Your task to perform on an android device: What time is it in Berlin? Image 0: 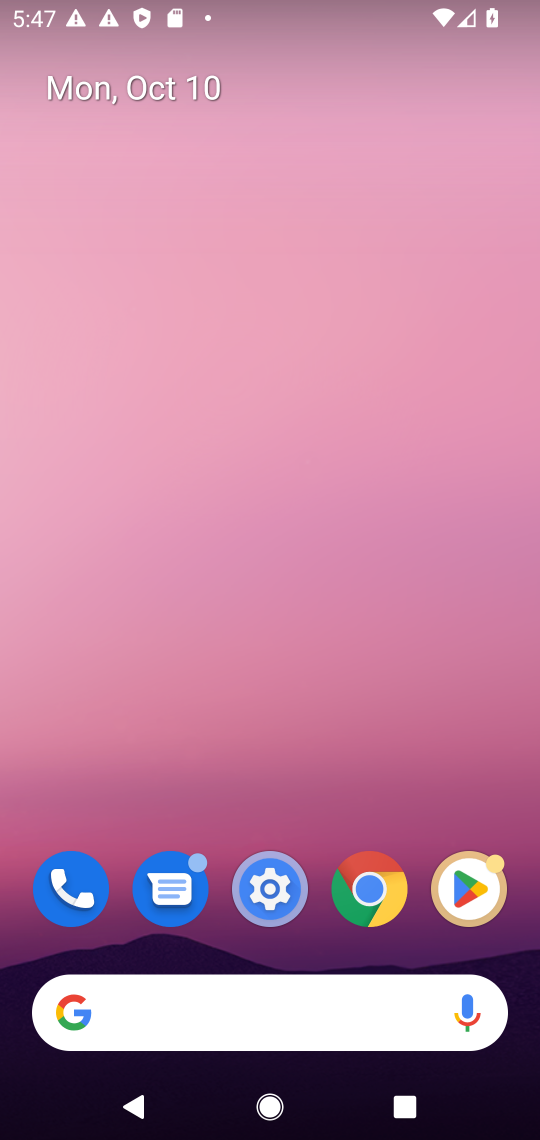
Step 0: click (270, 1009)
Your task to perform on an android device: What time is it in Berlin? Image 1: 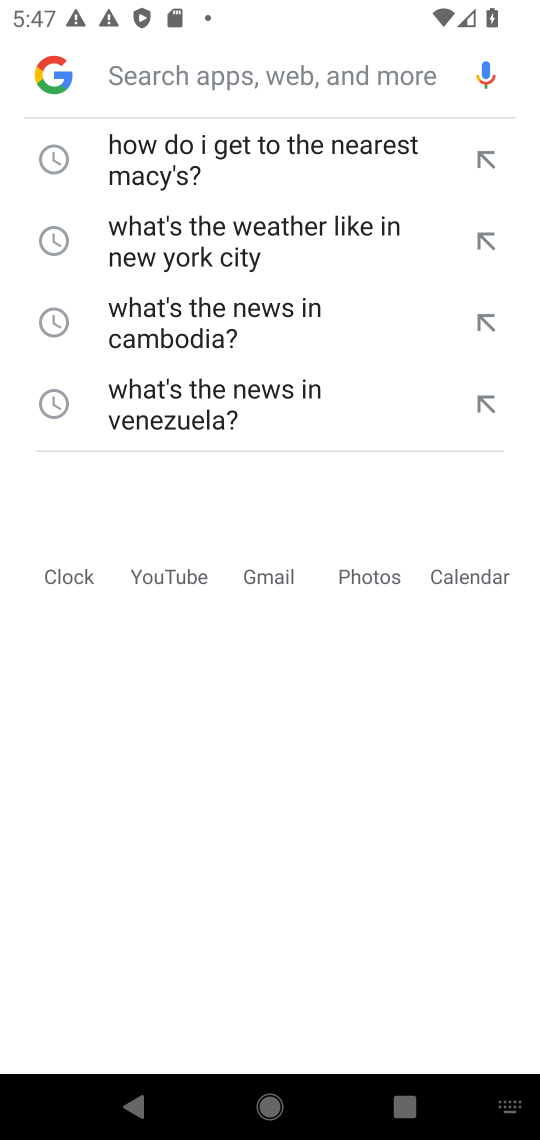
Step 1: type "What time is it in Berlin?"
Your task to perform on an android device: What time is it in Berlin? Image 2: 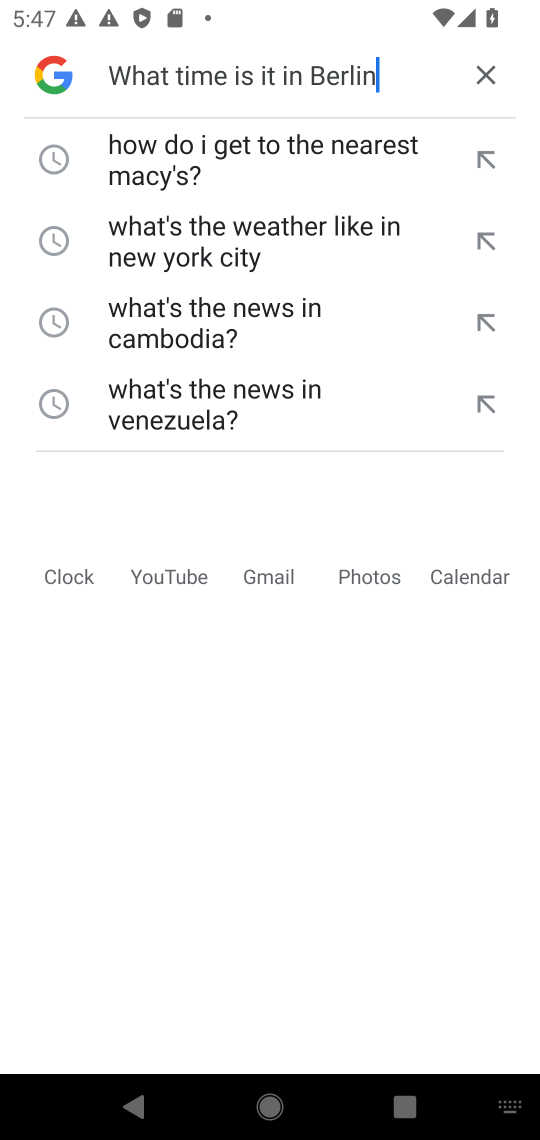
Step 2: type ""
Your task to perform on an android device: What time is it in Berlin? Image 3: 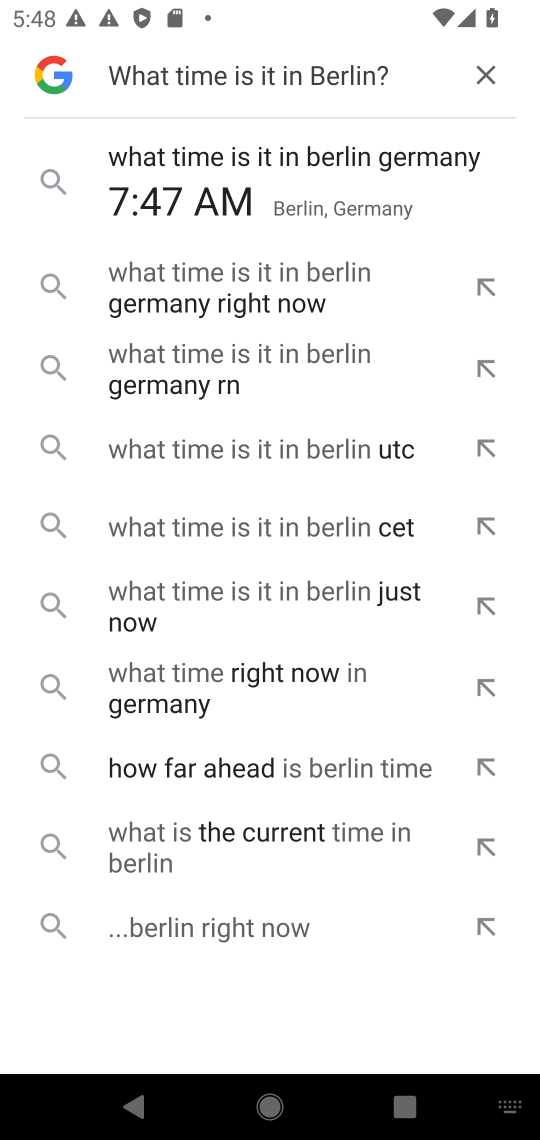
Step 3: click (364, 167)
Your task to perform on an android device: What time is it in Berlin? Image 4: 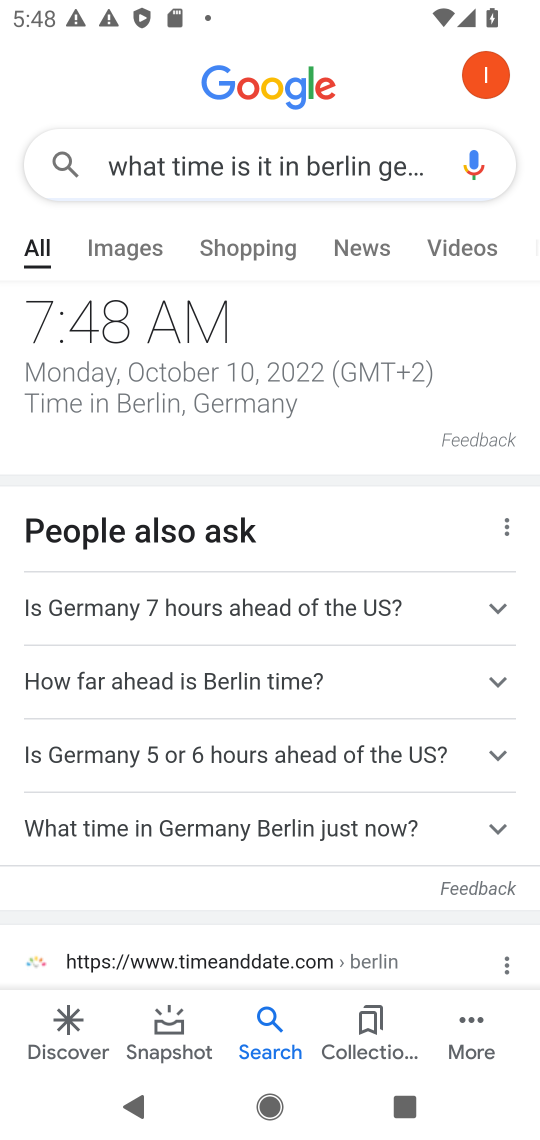
Step 4: drag from (350, 672) to (326, 315)
Your task to perform on an android device: What time is it in Berlin? Image 5: 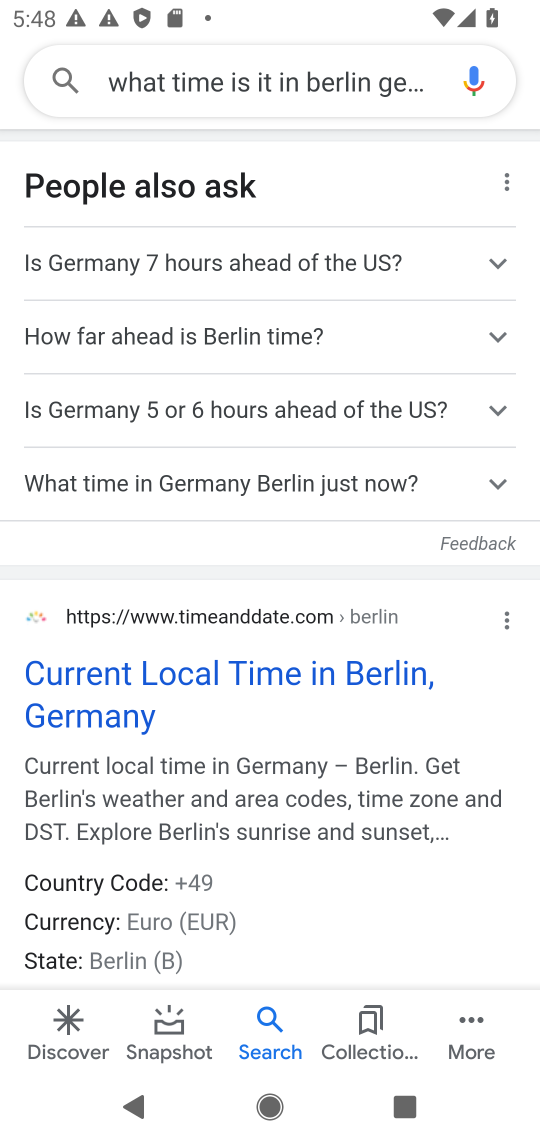
Step 5: drag from (369, 693) to (342, 320)
Your task to perform on an android device: What time is it in Berlin? Image 6: 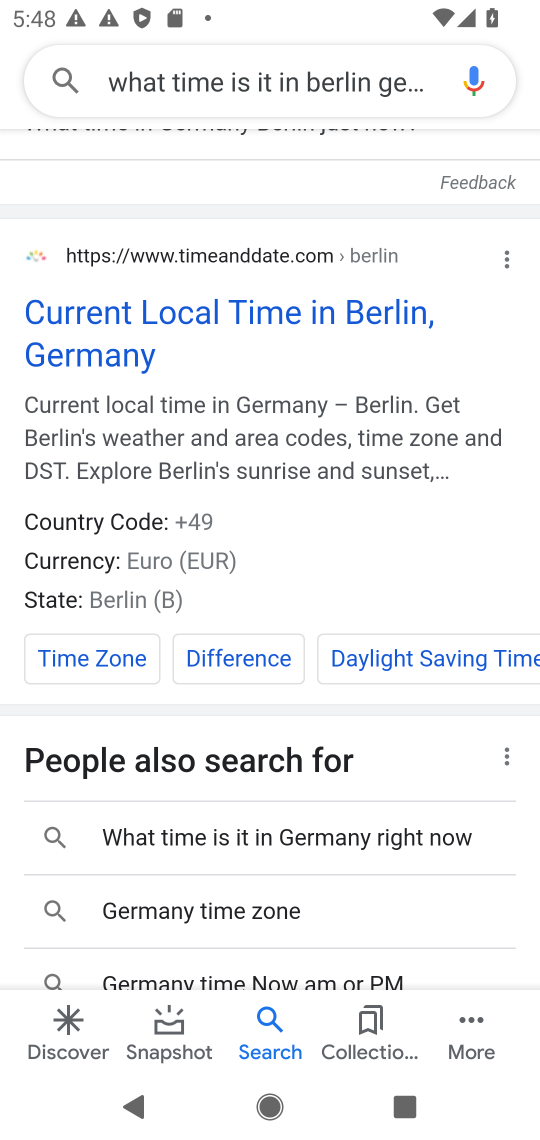
Step 6: drag from (293, 782) to (239, 140)
Your task to perform on an android device: What time is it in Berlin? Image 7: 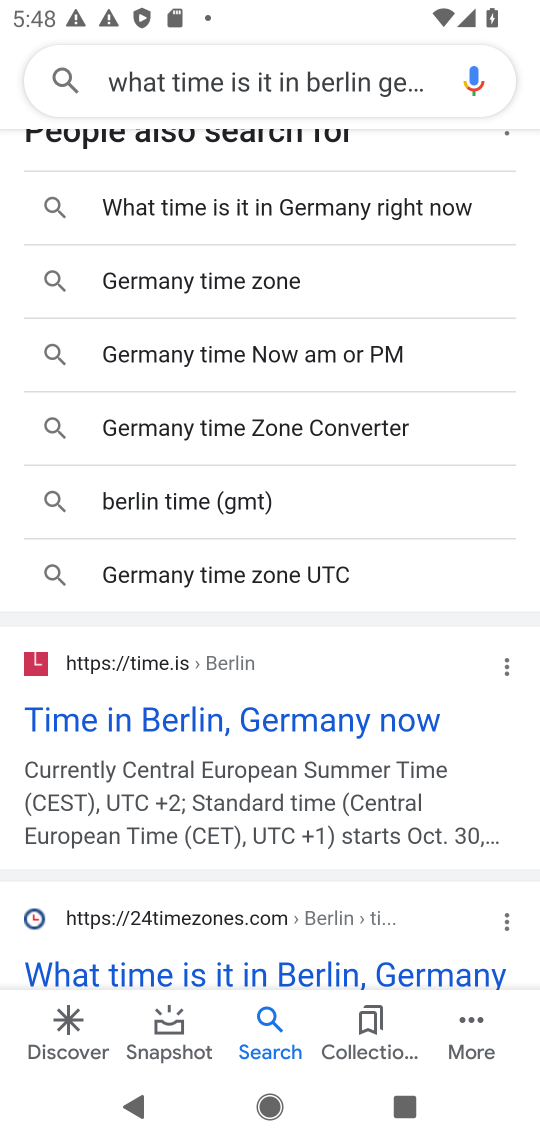
Step 7: click (208, 718)
Your task to perform on an android device: What time is it in Berlin? Image 8: 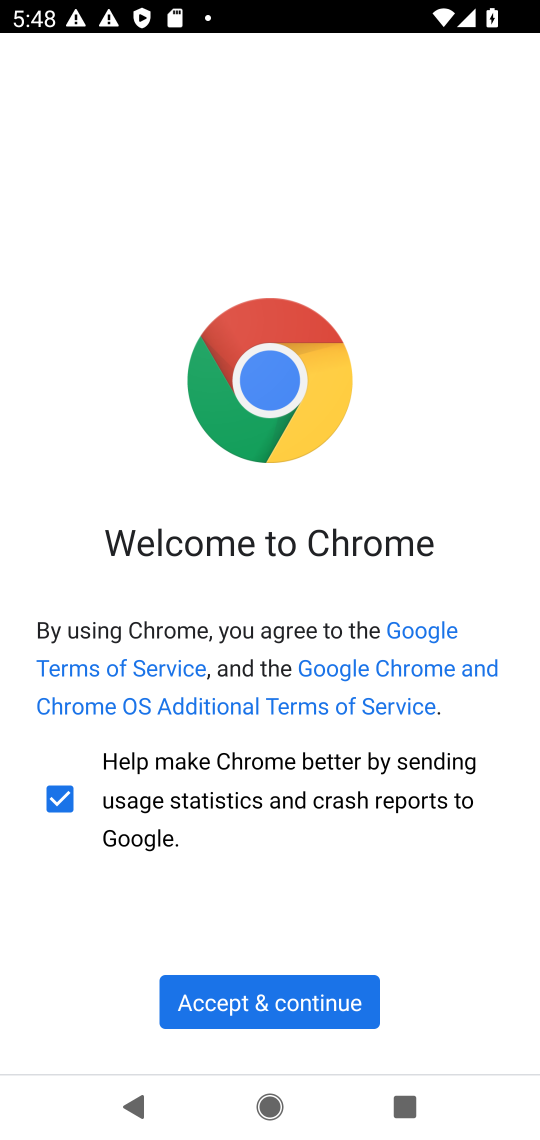
Step 8: click (239, 987)
Your task to perform on an android device: What time is it in Berlin? Image 9: 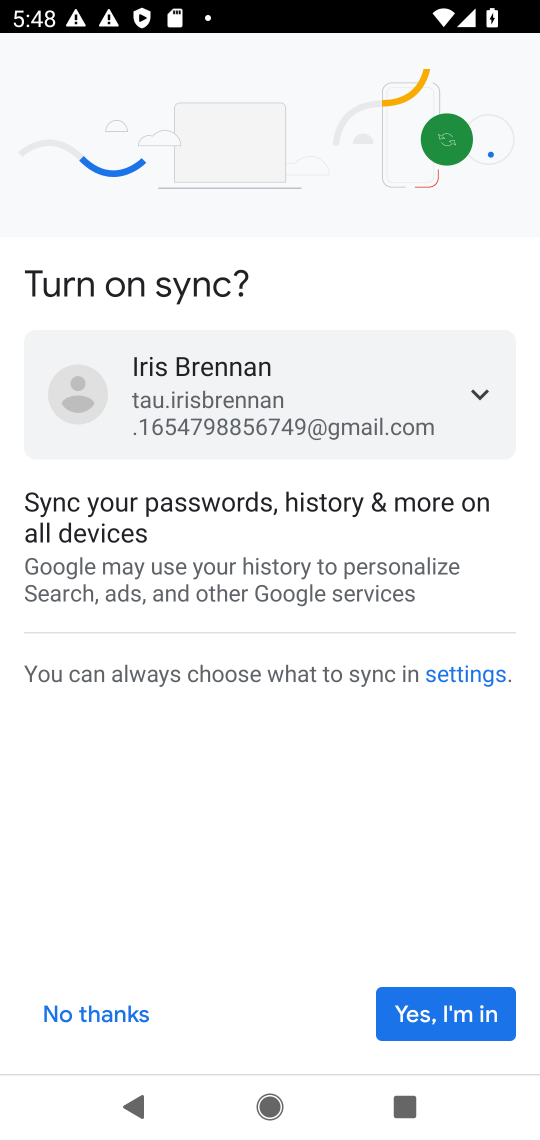
Step 9: click (456, 1038)
Your task to perform on an android device: What time is it in Berlin? Image 10: 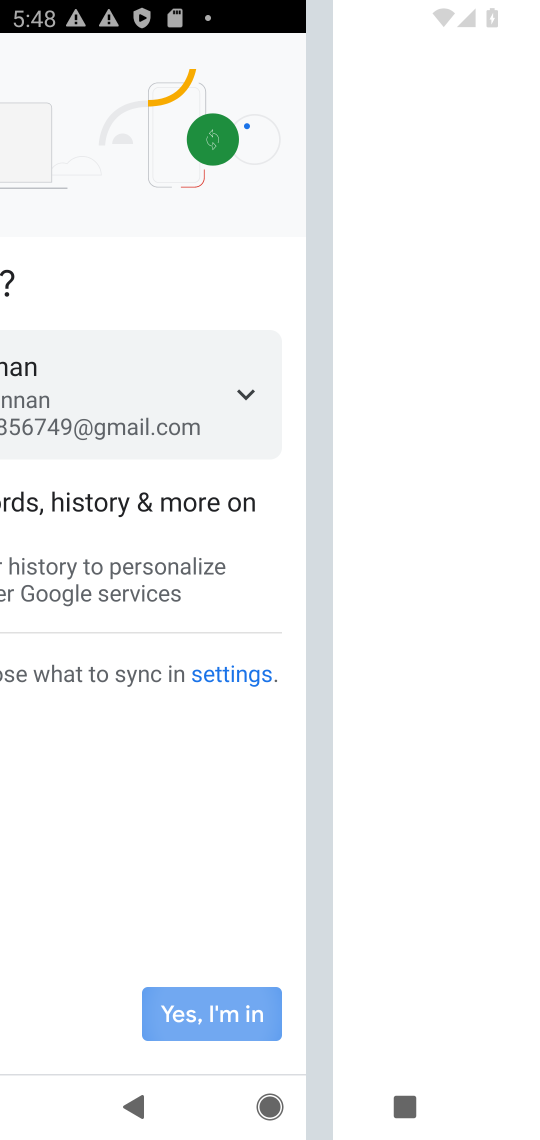
Step 10: click (454, 1026)
Your task to perform on an android device: What time is it in Berlin? Image 11: 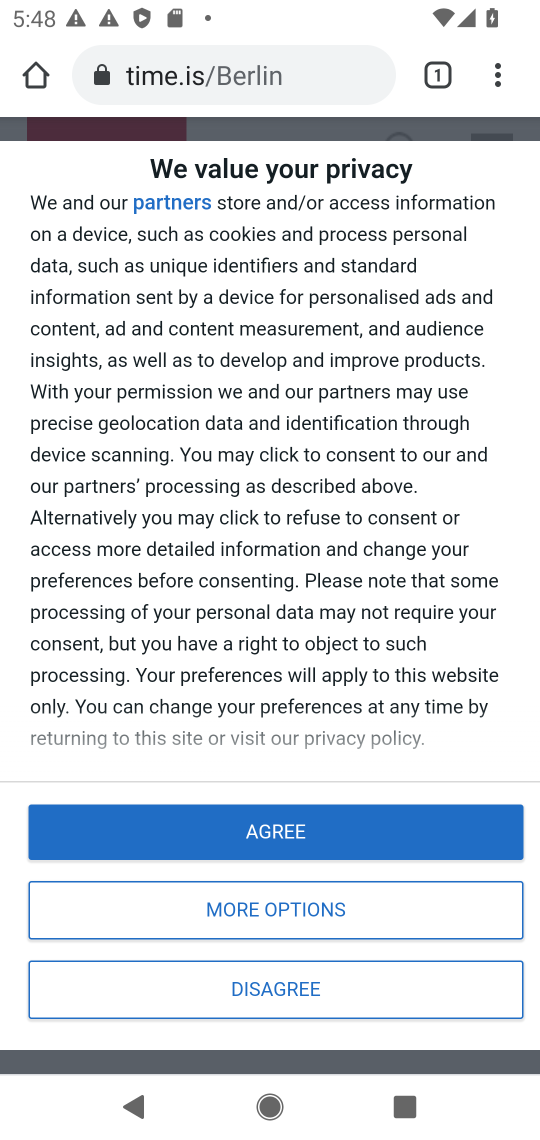
Step 11: click (326, 972)
Your task to perform on an android device: What time is it in Berlin? Image 12: 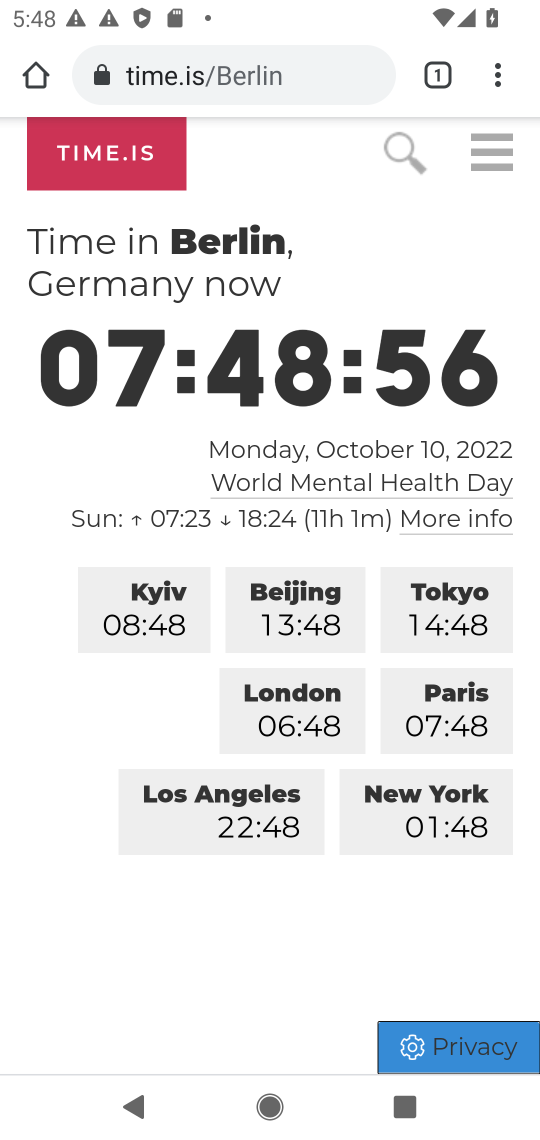
Step 12: drag from (187, 908) to (215, 353)
Your task to perform on an android device: What time is it in Berlin? Image 13: 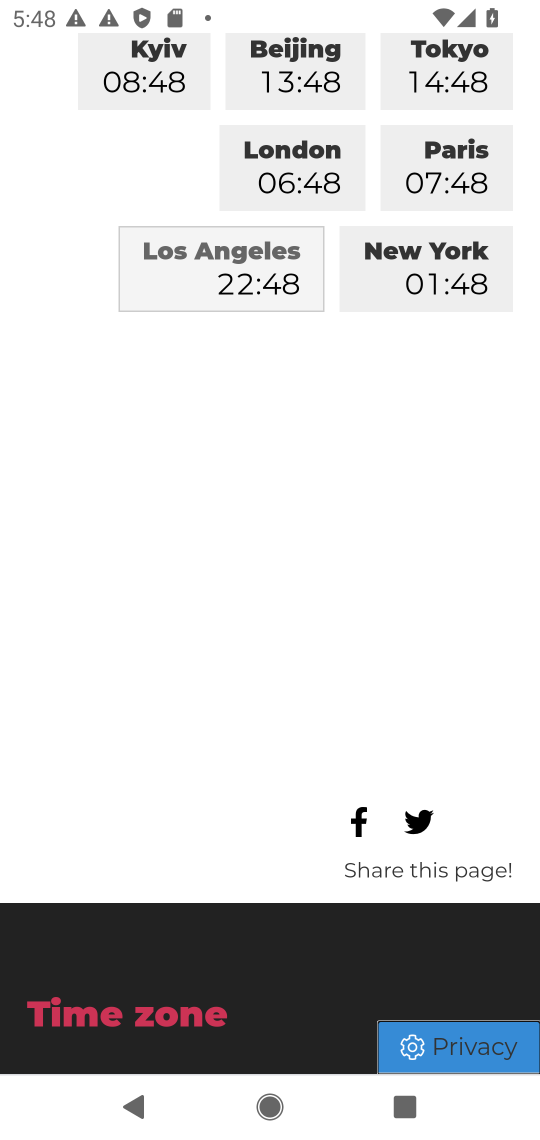
Step 13: drag from (346, 595) to (377, 280)
Your task to perform on an android device: What time is it in Berlin? Image 14: 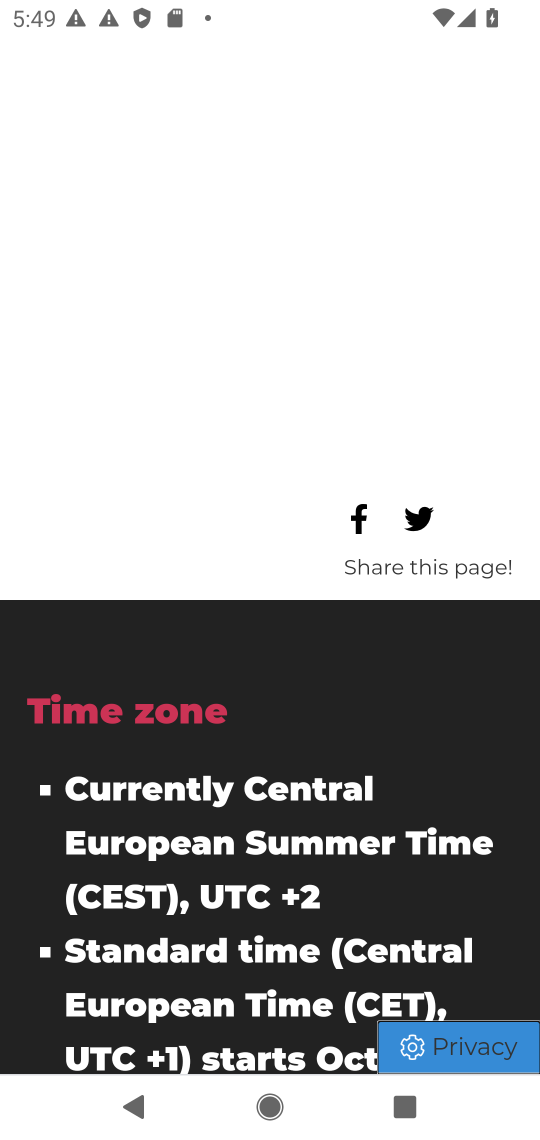
Step 14: drag from (308, 955) to (325, 358)
Your task to perform on an android device: What time is it in Berlin? Image 15: 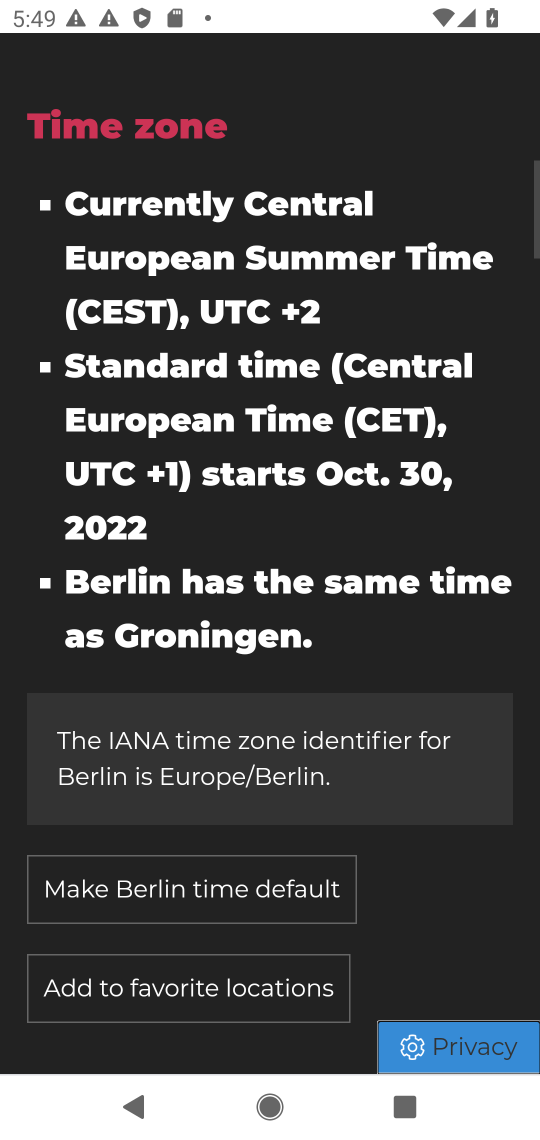
Step 15: drag from (265, 911) to (349, 205)
Your task to perform on an android device: What time is it in Berlin? Image 16: 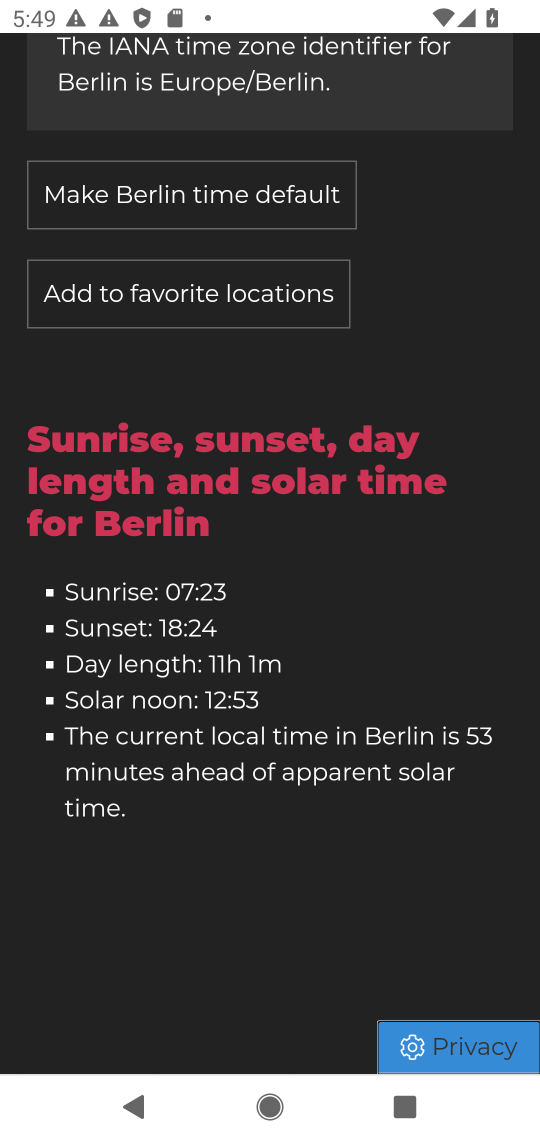
Step 16: drag from (379, 861) to (388, 268)
Your task to perform on an android device: What time is it in Berlin? Image 17: 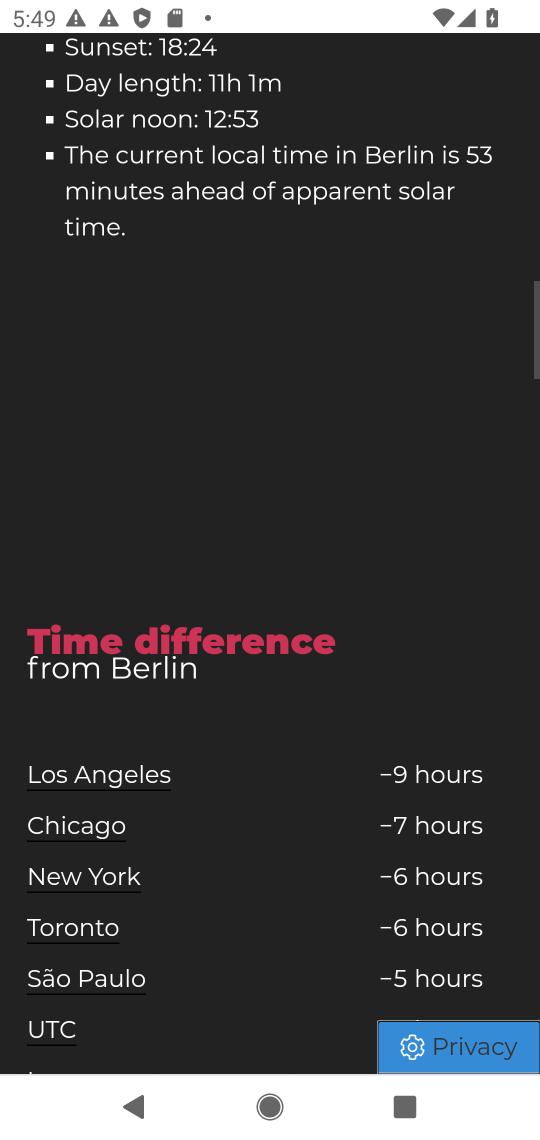
Step 17: drag from (394, 806) to (378, 163)
Your task to perform on an android device: What time is it in Berlin? Image 18: 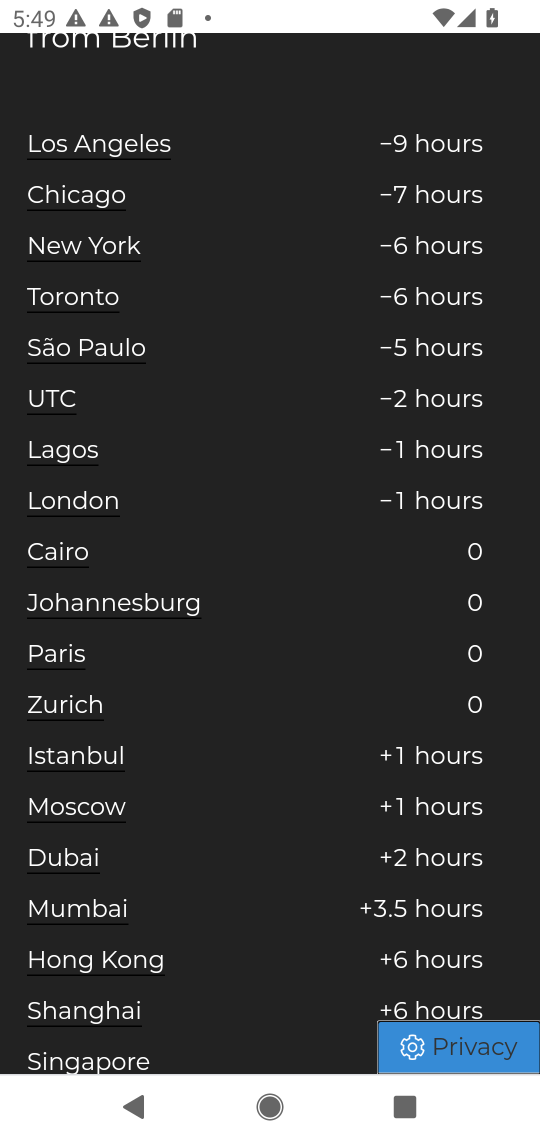
Step 18: drag from (348, 791) to (278, 13)
Your task to perform on an android device: What time is it in Berlin? Image 19: 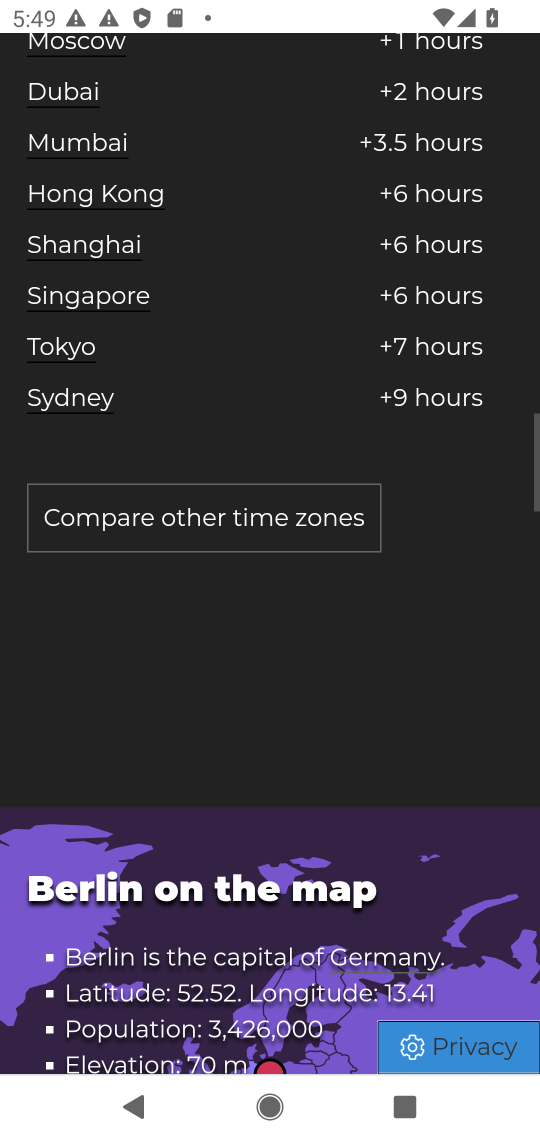
Step 19: drag from (299, 644) to (334, 718)
Your task to perform on an android device: What time is it in Berlin? Image 20: 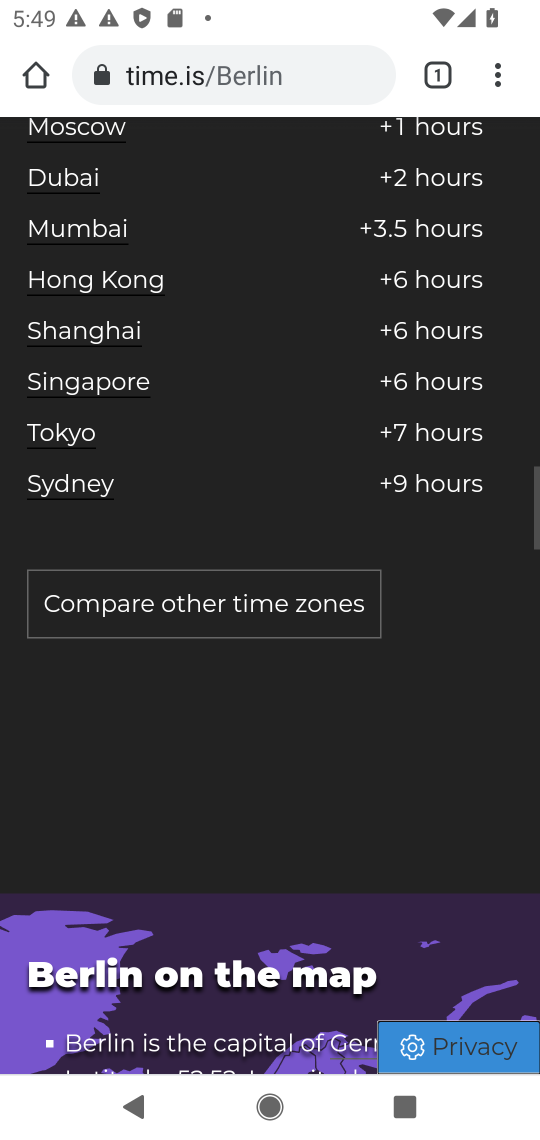
Step 20: drag from (319, 181) to (326, 547)
Your task to perform on an android device: What time is it in Berlin? Image 21: 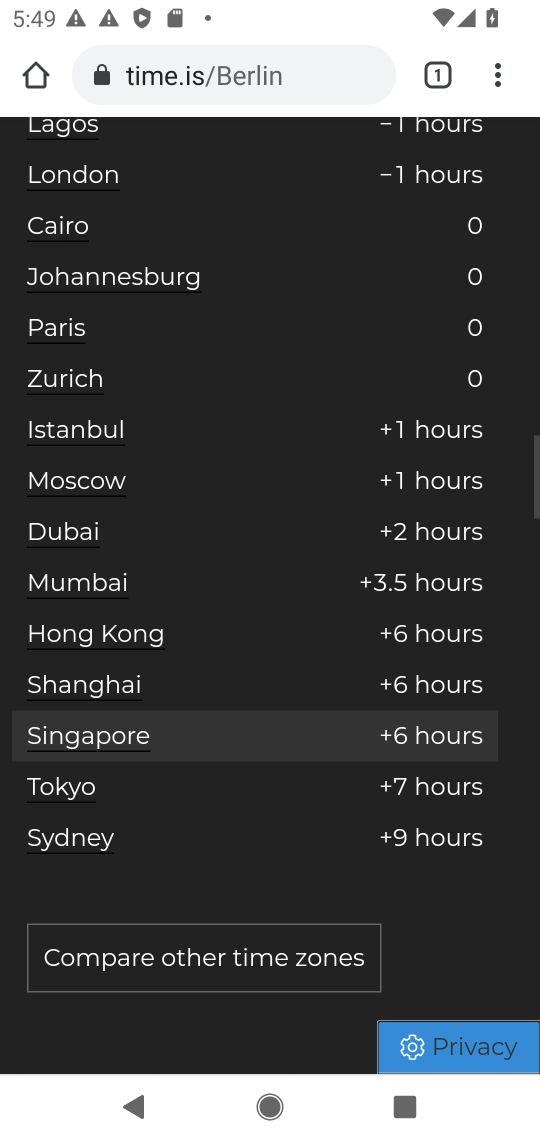
Step 21: drag from (356, 444) to (341, 847)
Your task to perform on an android device: What time is it in Berlin? Image 22: 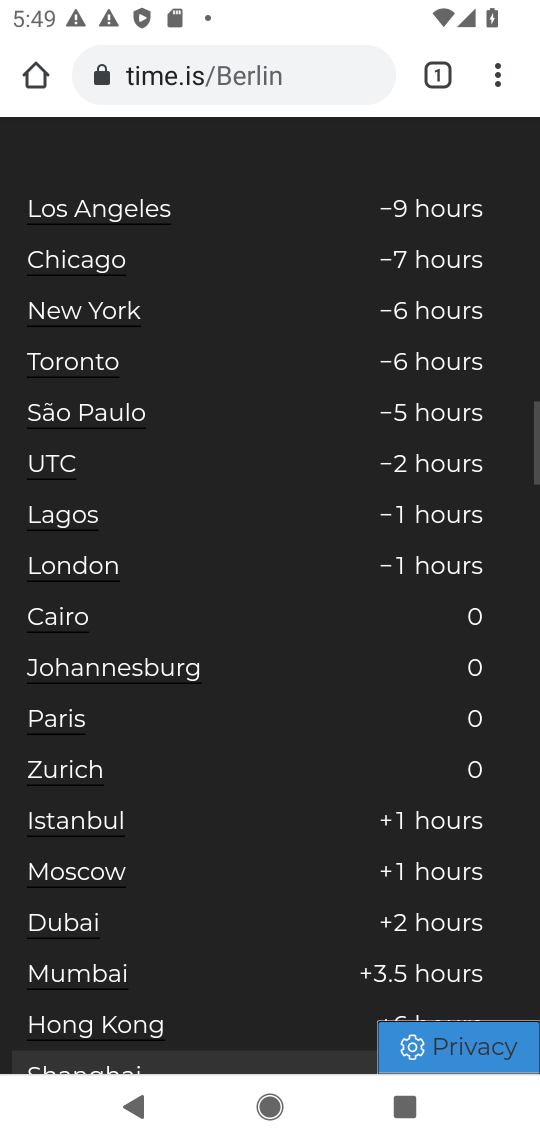
Step 22: drag from (296, 608) to (307, 662)
Your task to perform on an android device: What time is it in Berlin? Image 23: 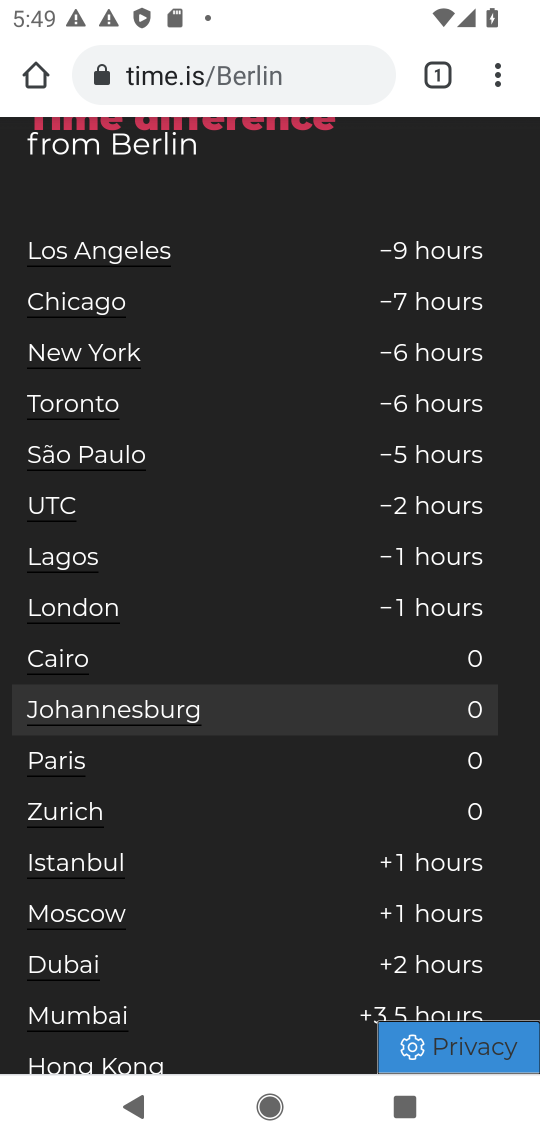
Step 23: drag from (212, 299) to (206, 695)
Your task to perform on an android device: What time is it in Berlin? Image 24: 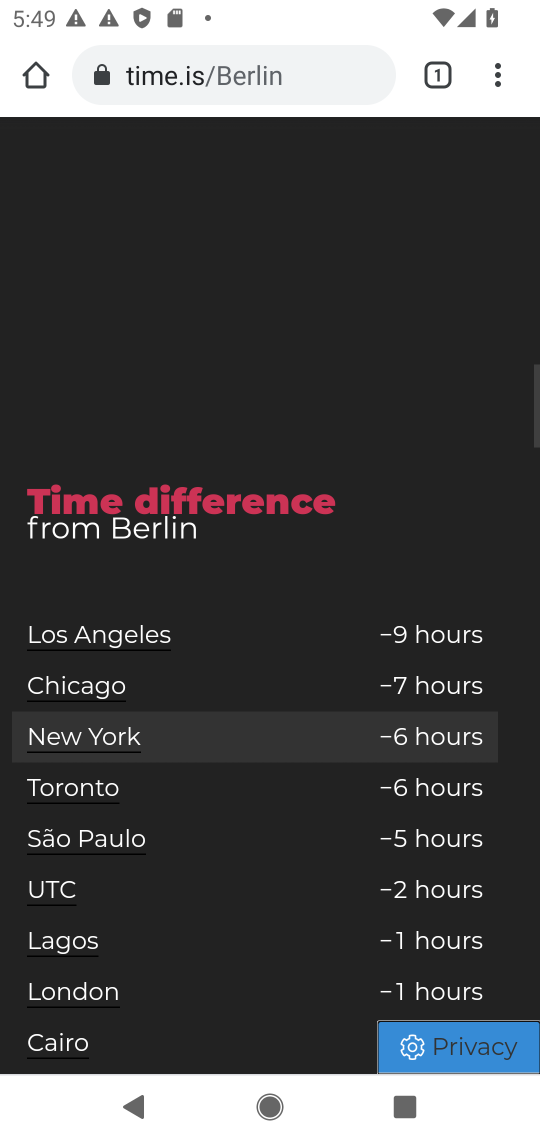
Step 24: drag from (262, 372) to (233, 786)
Your task to perform on an android device: What time is it in Berlin? Image 25: 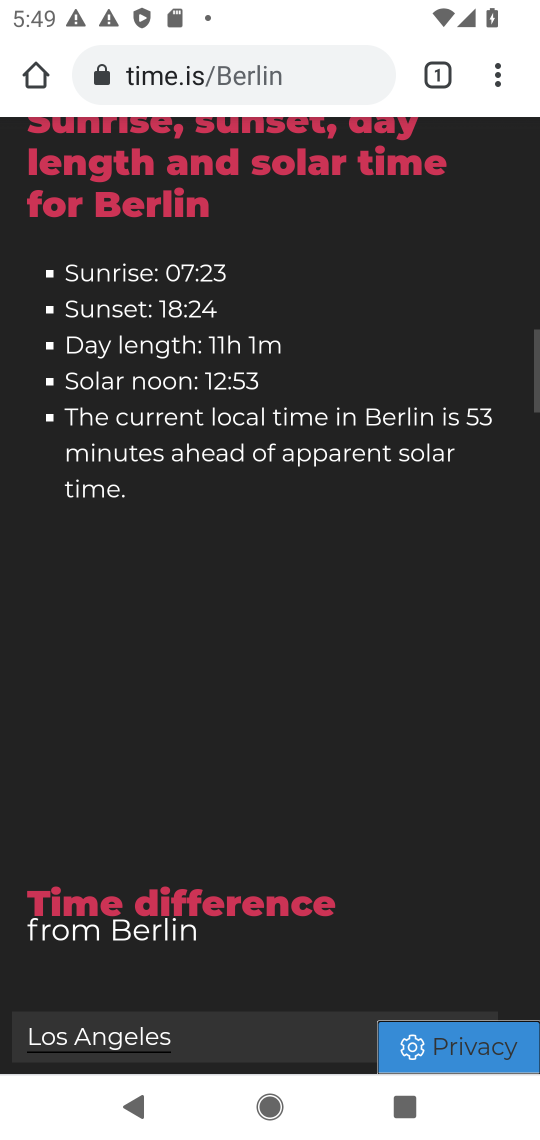
Step 25: drag from (271, 936) to (332, 342)
Your task to perform on an android device: What time is it in Berlin? Image 26: 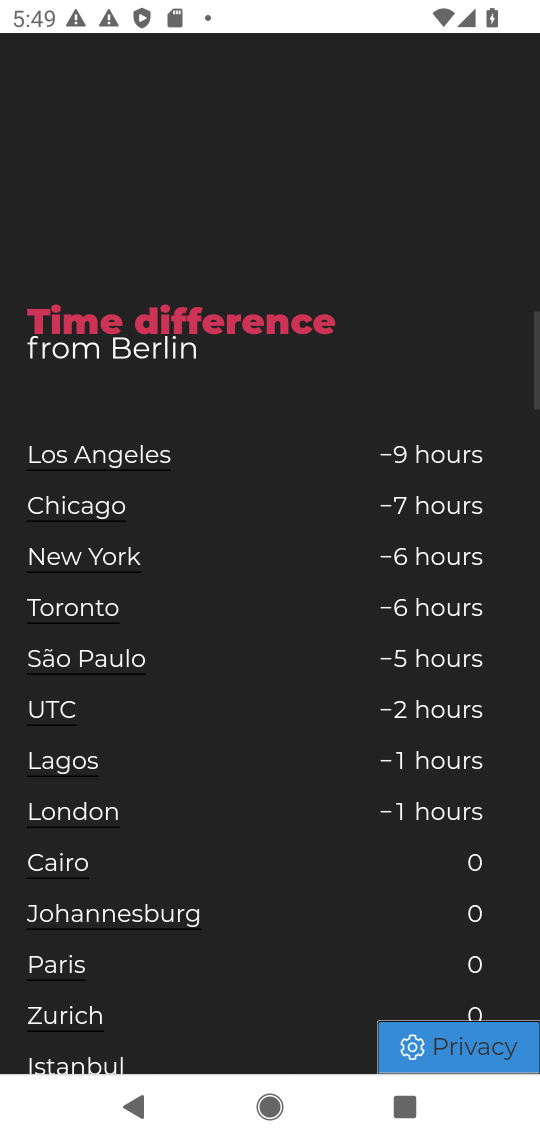
Step 26: drag from (261, 855) to (328, 477)
Your task to perform on an android device: What time is it in Berlin? Image 27: 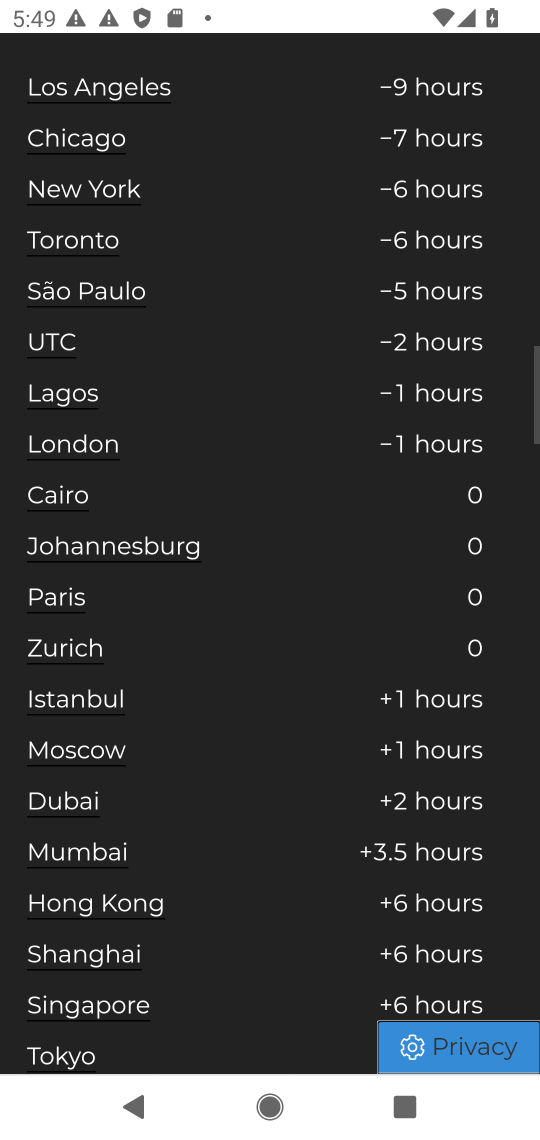
Step 27: drag from (311, 857) to (344, 486)
Your task to perform on an android device: What time is it in Berlin? Image 28: 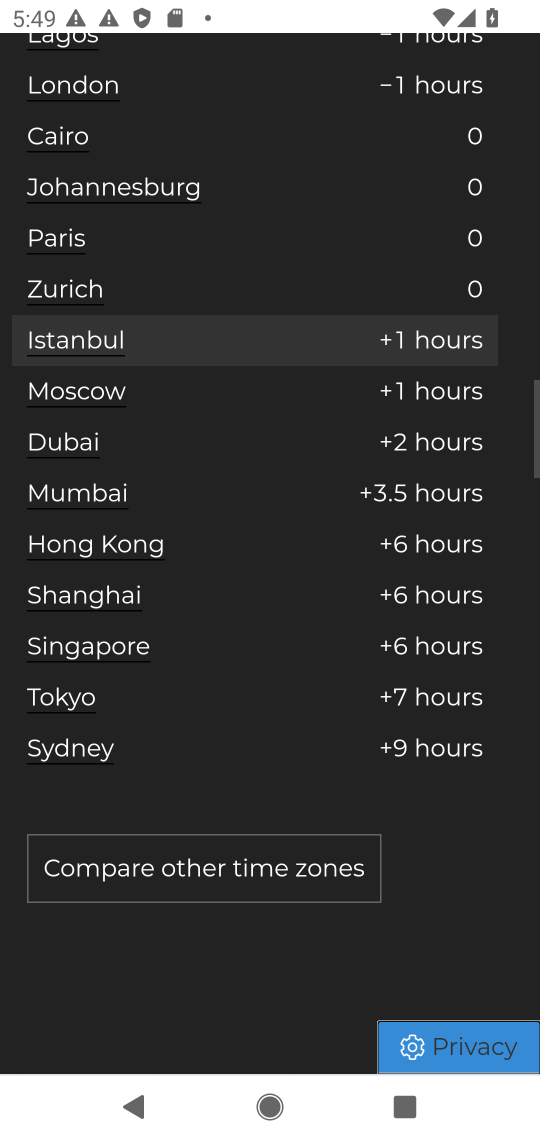
Step 28: drag from (343, 829) to (390, 511)
Your task to perform on an android device: What time is it in Berlin? Image 29: 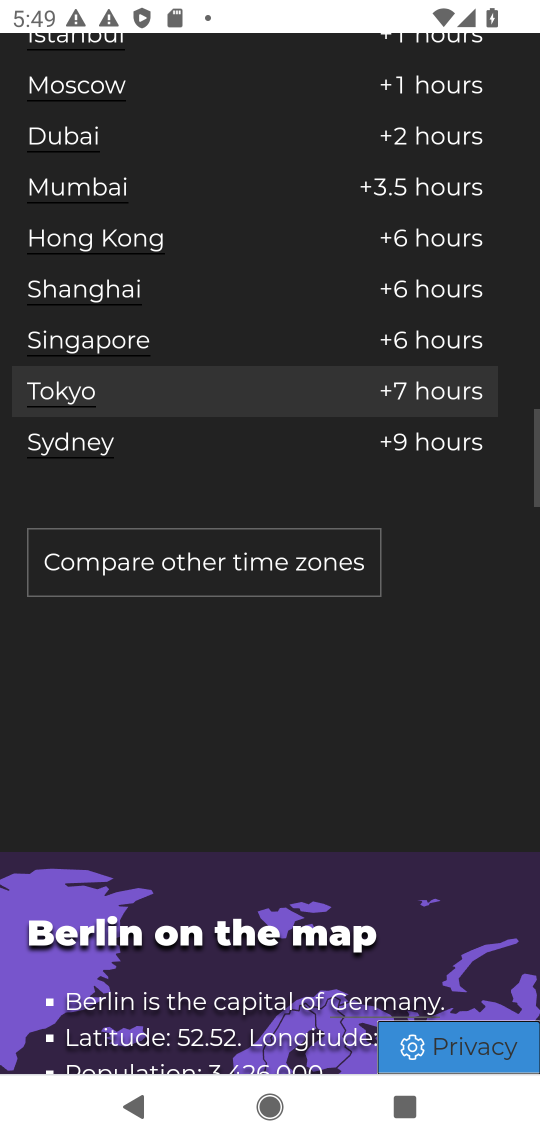
Step 29: drag from (374, 803) to (394, 388)
Your task to perform on an android device: What time is it in Berlin? Image 30: 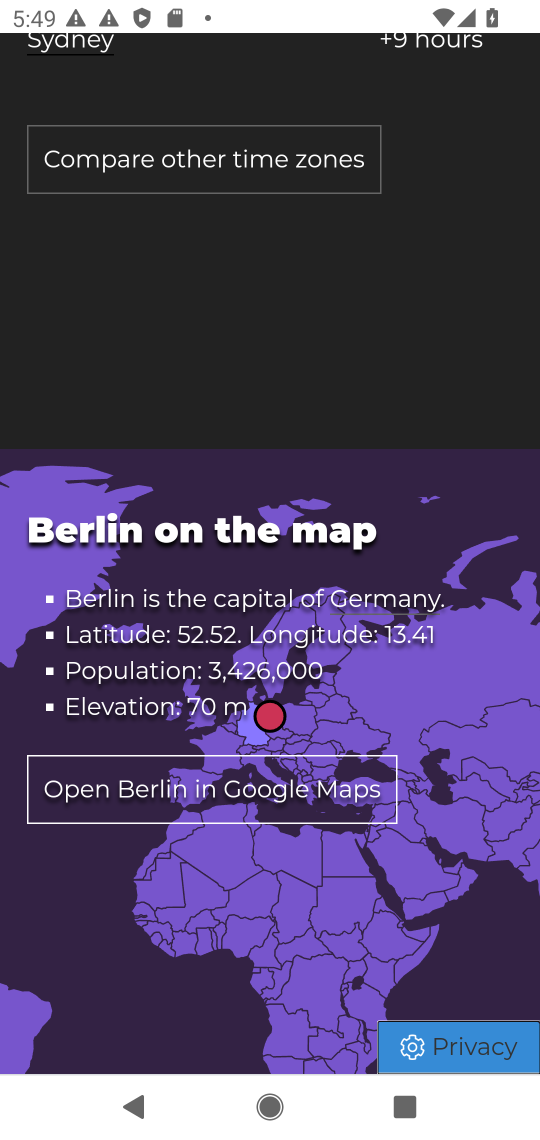
Step 30: press back button
Your task to perform on an android device: What time is it in Berlin? Image 31: 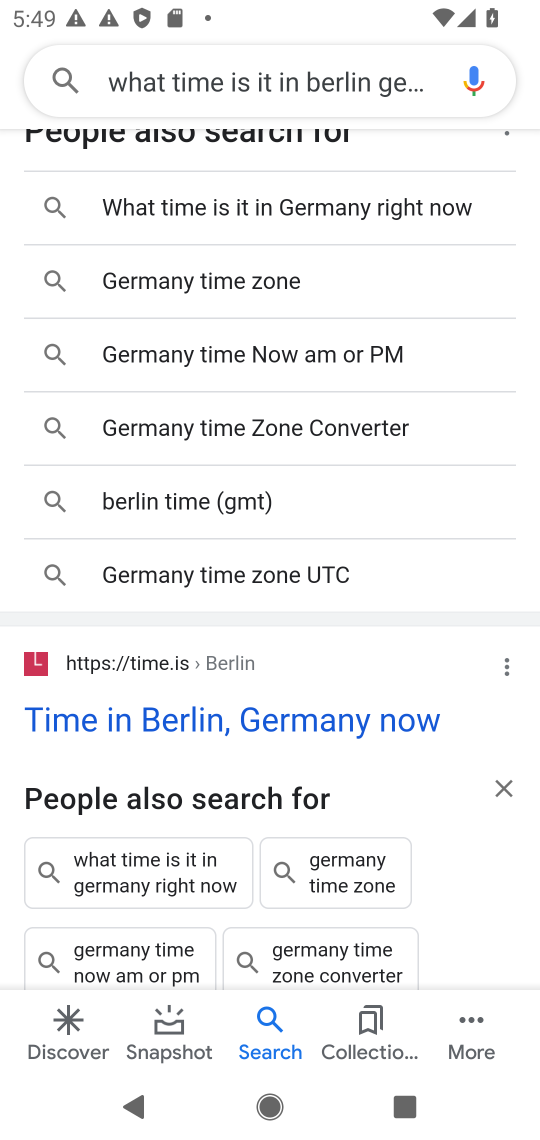
Step 31: drag from (248, 373) to (283, 967)
Your task to perform on an android device: What time is it in Berlin? Image 32: 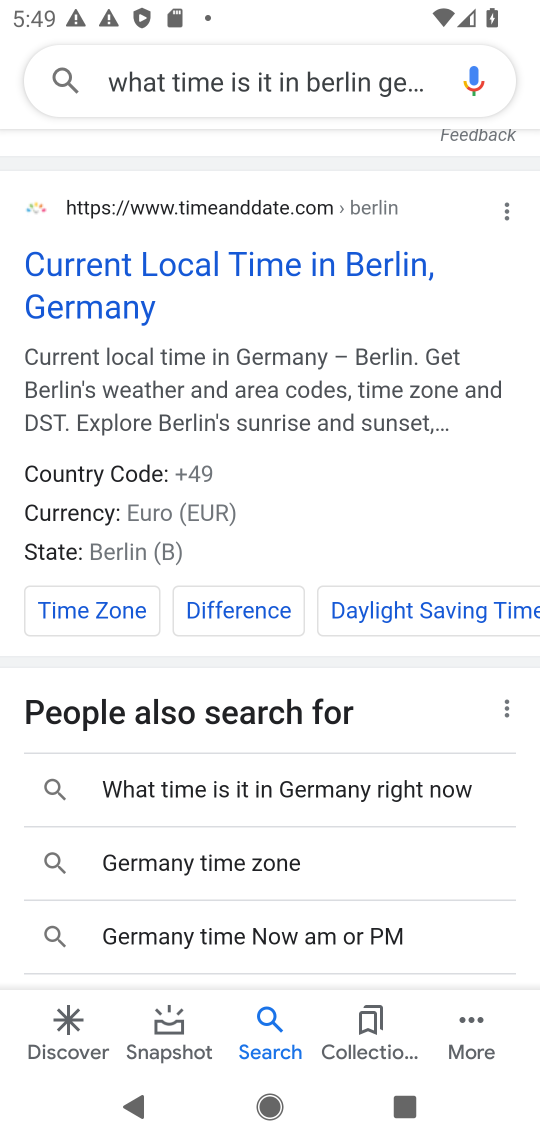
Step 32: click (293, 270)
Your task to perform on an android device: What time is it in Berlin? Image 33: 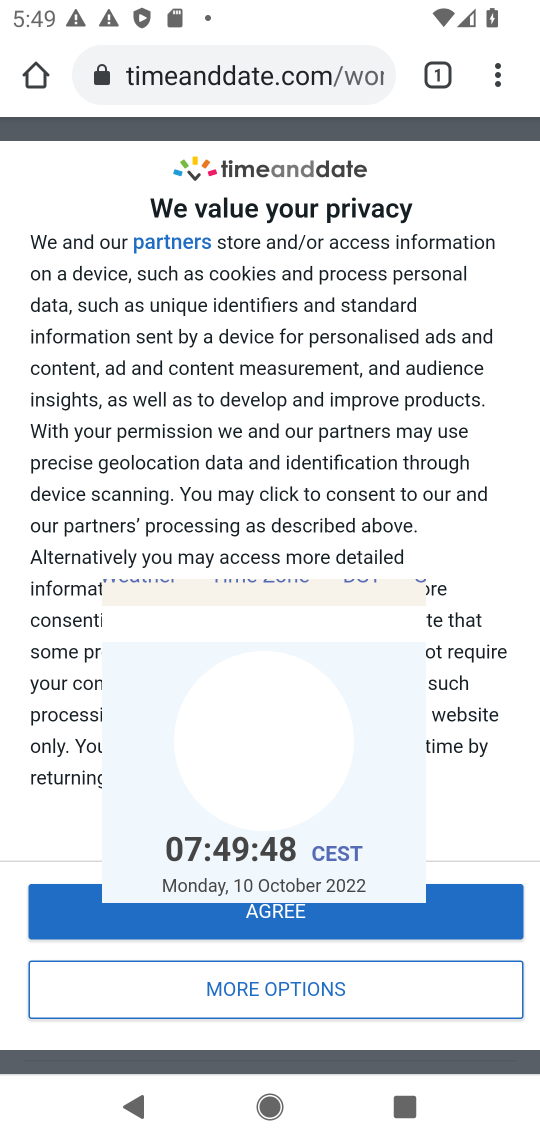
Step 33: drag from (287, 964) to (379, 513)
Your task to perform on an android device: What time is it in Berlin? Image 34: 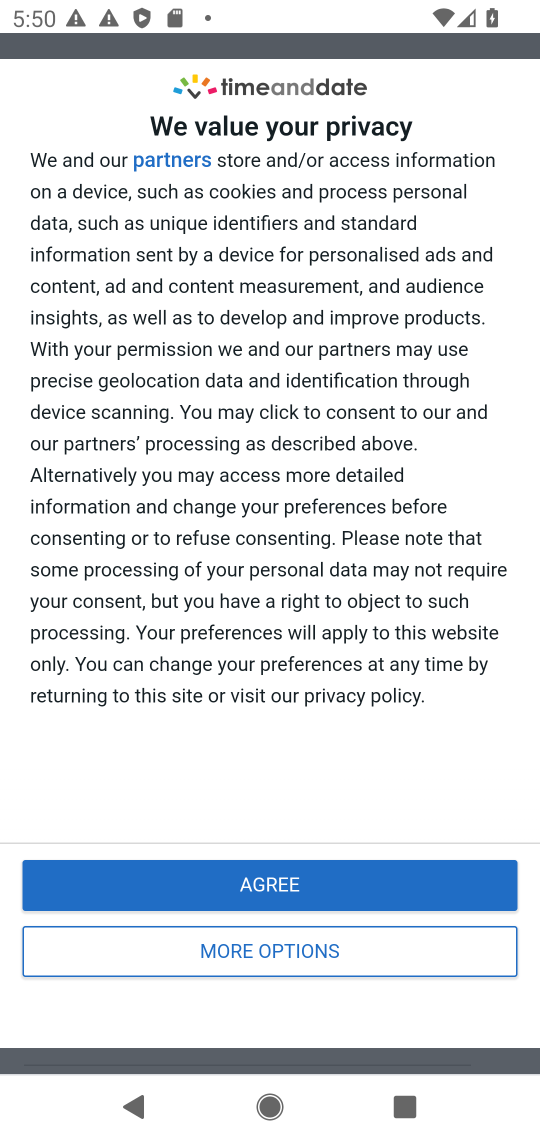
Step 34: click (321, 898)
Your task to perform on an android device: What time is it in Berlin? Image 35: 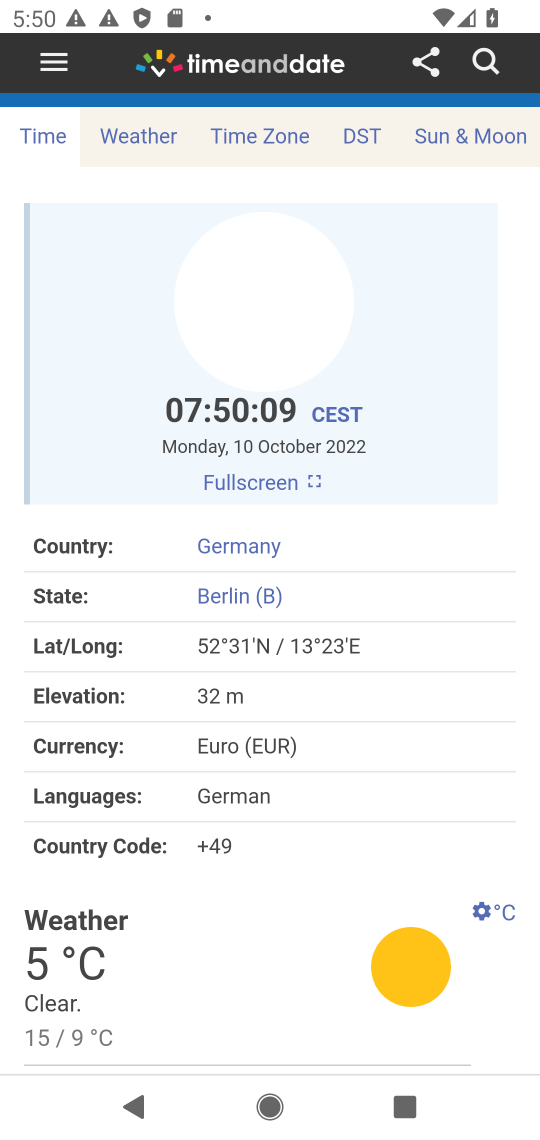
Step 35: task complete